Your task to perform on an android device: Turn off the flashlight Image 0: 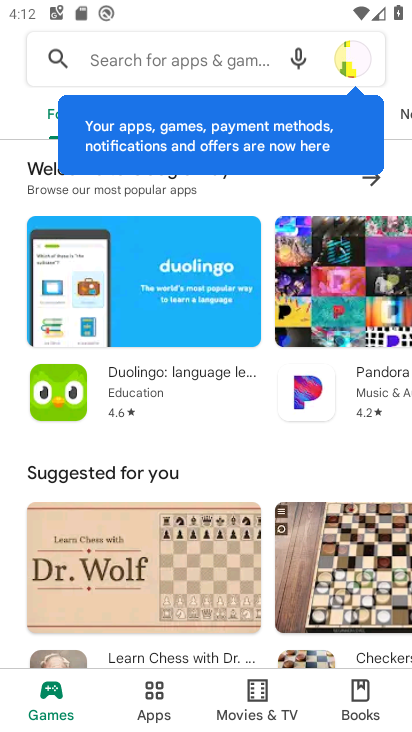
Step 0: press back button
Your task to perform on an android device: Turn off the flashlight Image 1: 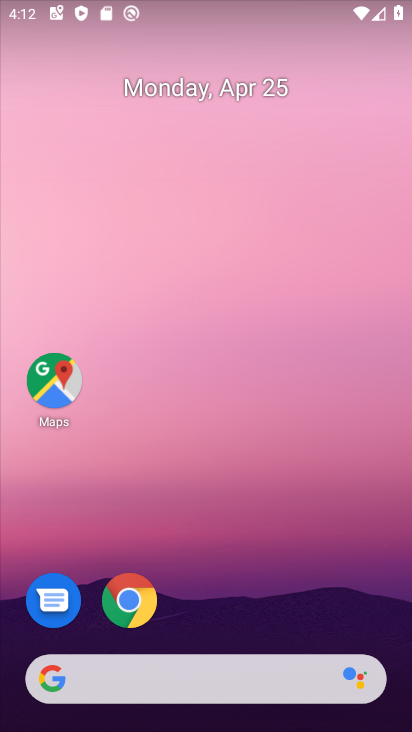
Step 1: drag from (291, 502) to (271, 35)
Your task to perform on an android device: Turn off the flashlight Image 2: 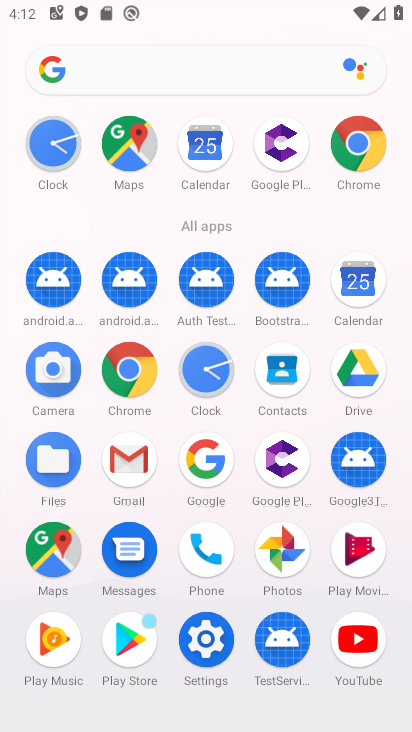
Step 2: drag from (6, 532) to (4, 298)
Your task to perform on an android device: Turn off the flashlight Image 3: 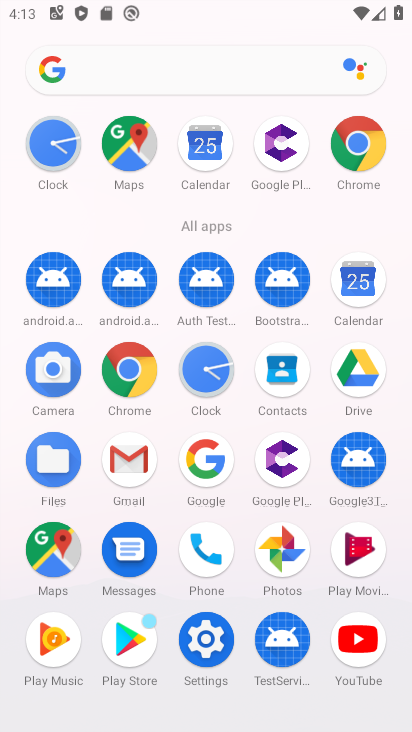
Step 3: click (197, 636)
Your task to perform on an android device: Turn off the flashlight Image 4: 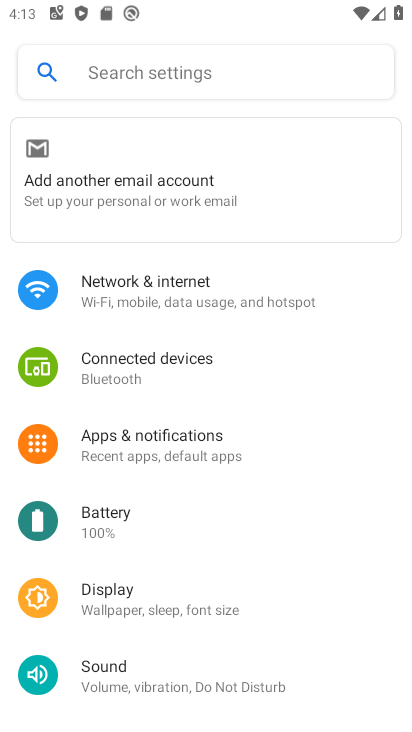
Step 4: click (225, 289)
Your task to perform on an android device: Turn off the flashlight Image 5: 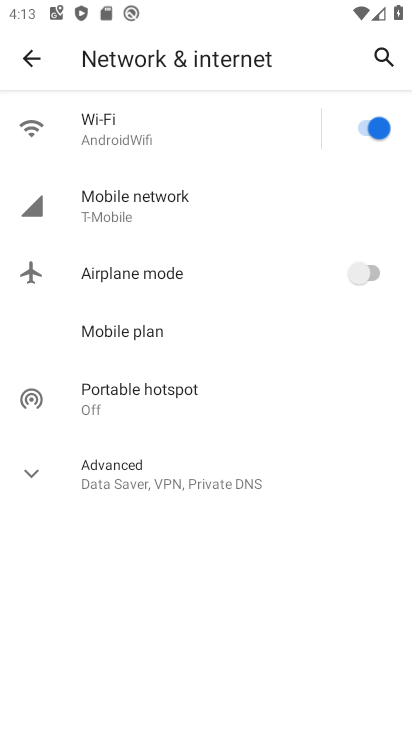
Step 5: click (38, 469)
Your task to perform on an android device: Turn off the flashlight Image 6: 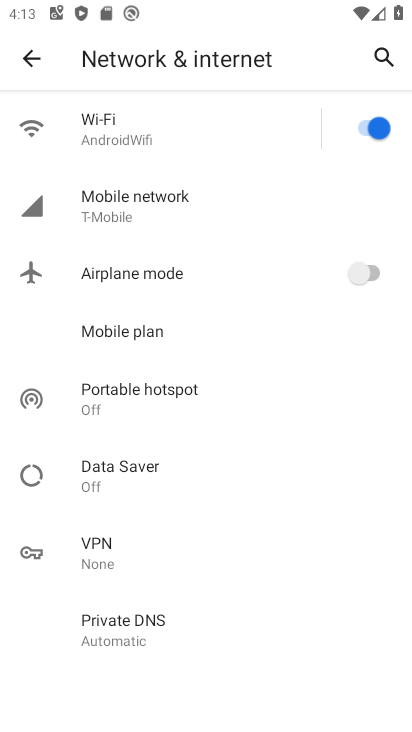
Step 6: drag from (208, 210) to (232, 528)
Your task to perform on an android device: Turn off the flashlight Image 7: 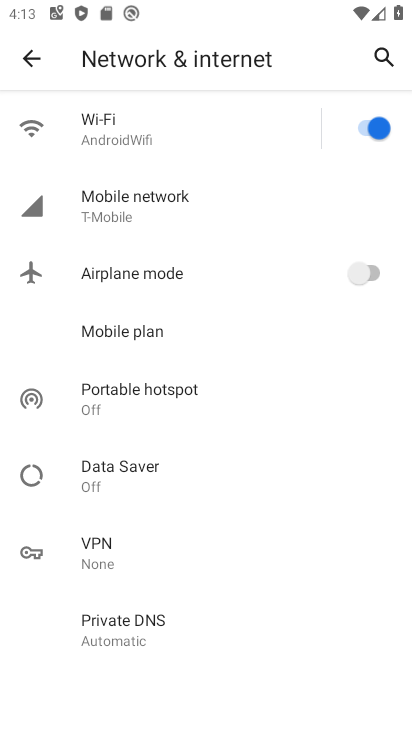
Step 7: click (40, 53)
Your task to perform on an android device: Turn off the flashlight Image 8: 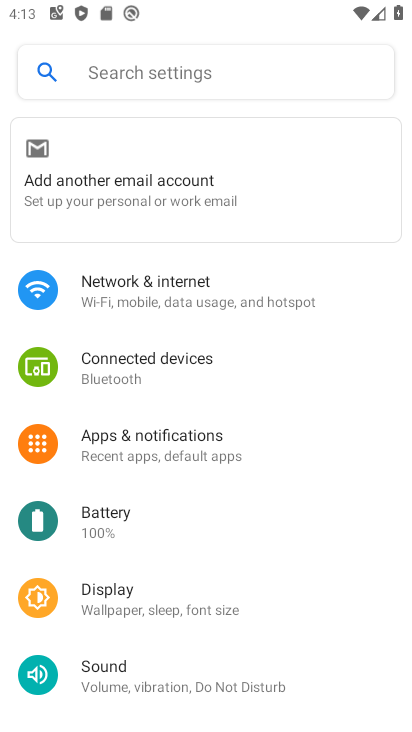
Step 8: click (193, 661)
Your task to perform on an android device: Turn off the flashlight Image 9: 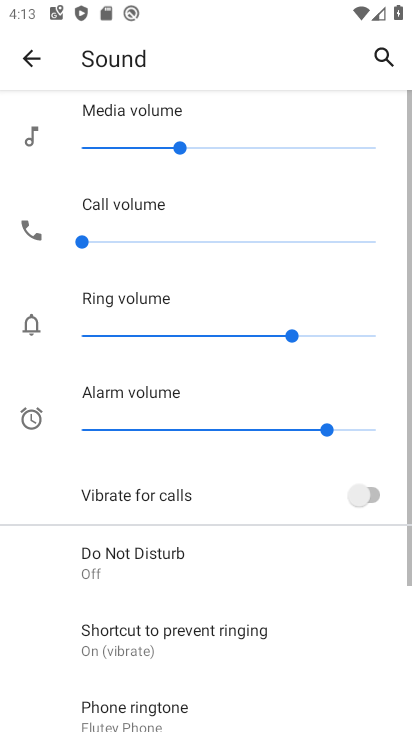
Step 9: drag from (198, 629) to (244, 152)
Your task to perform on an android device: Turn off the flashlight Image 10: 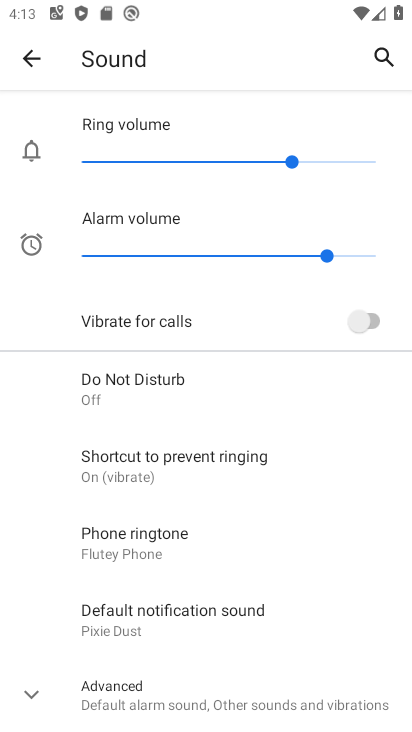
Step 10: drag from (225, 377) to (236, 98)
Your task to perform on an android device: Turn off the flashlight Image 11: 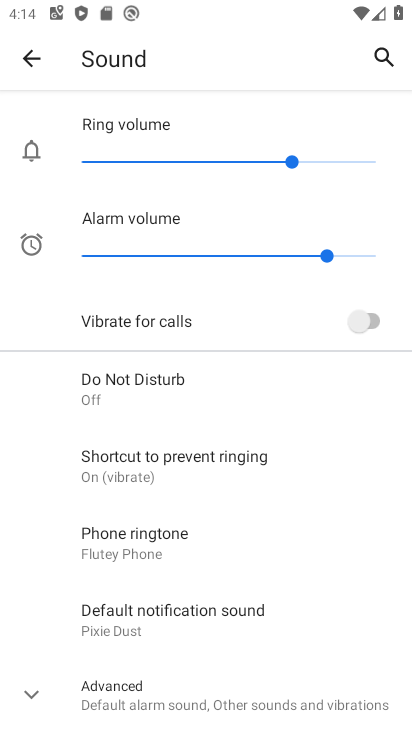
Step 11: drag from (216, 381) to (240, 177)
Your task to perform on an android device: Turn off the flashlight Image 12: 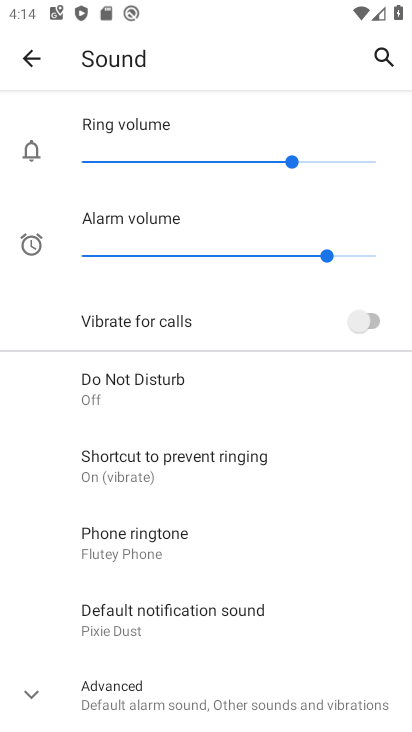
Step 12: click (44, 60)
Your task to perform on an android device: Turn off the flashlight Image 13: 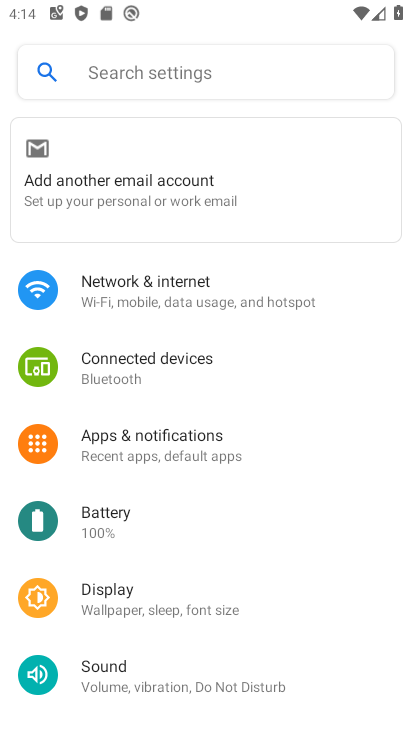
Step 13: task complete